Your task to perform on an android device: turn pop-ups on in chrome Image 0: 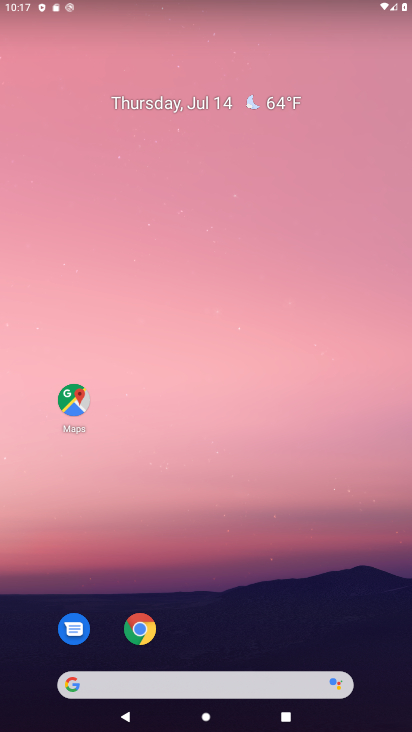
Step 0: click (141, 631)
Your task to perform on an android device: turn pop-ups on in chrome Image 1: 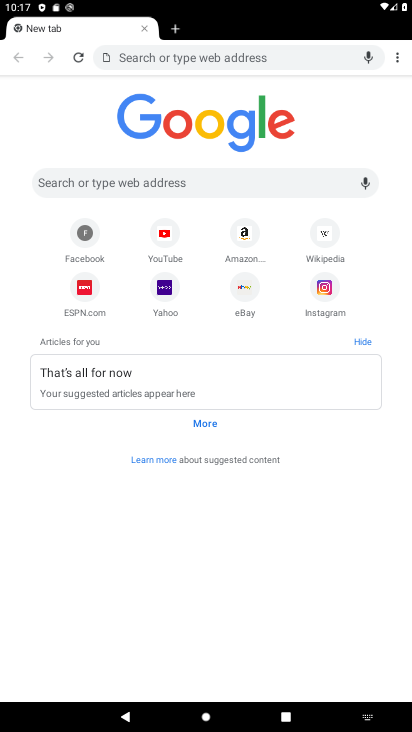
Step 1: click (396, 60)
Your task to perform on an android device: turn pop-ups on in chrome Image 2: 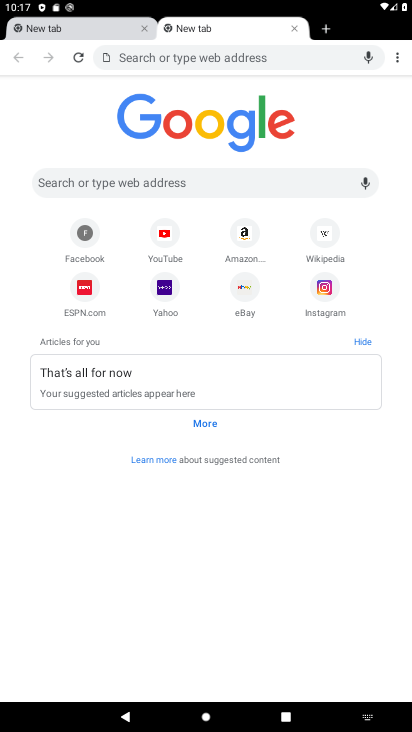
Step 2: click (399, 51)
Your task to perform on an android device: turn pop-ups on in chrome Image 3: 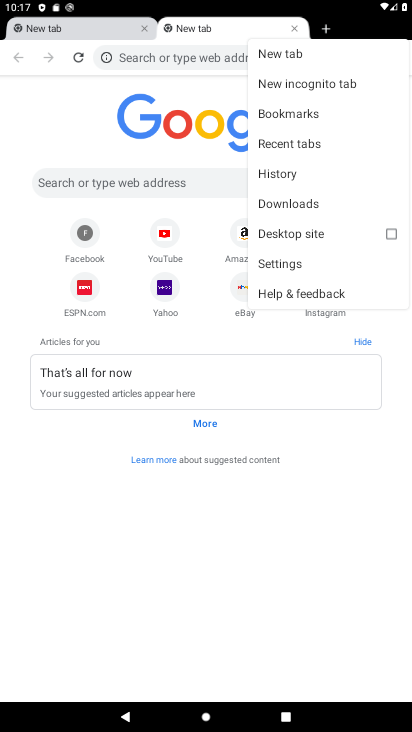
Step 3: click (287, 265)
Your task to perform on an android device: turn pop-ups on in chrome Image 4: 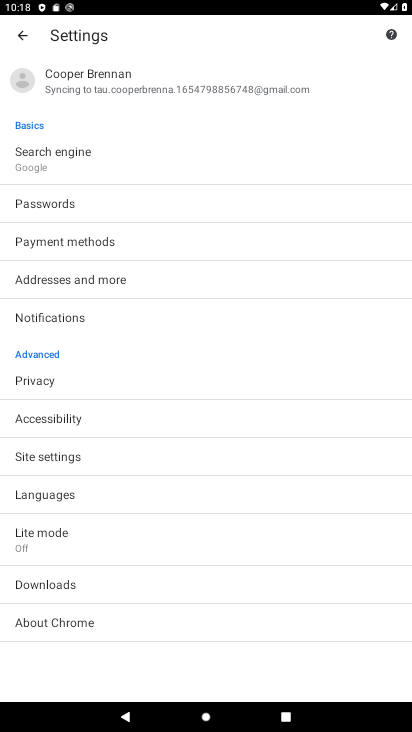
Step 4: click (37, 457)
Your task to perform on an android device: turn pop-ups on in chrome Image 5: 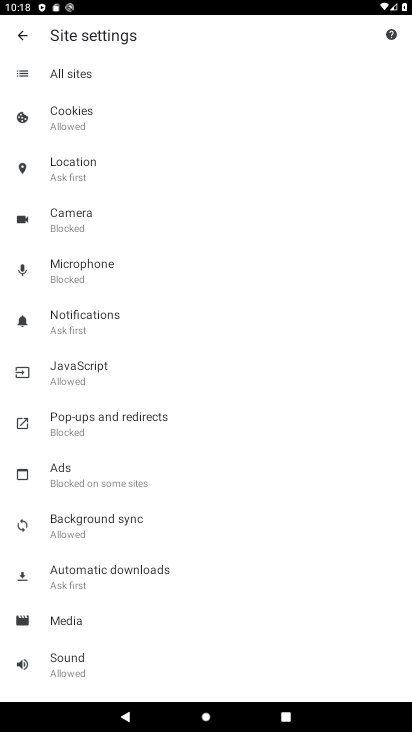
Step 5: click (98, 425)
Your task to perform on an android device: turn pop-ups on in chrome Image 6: 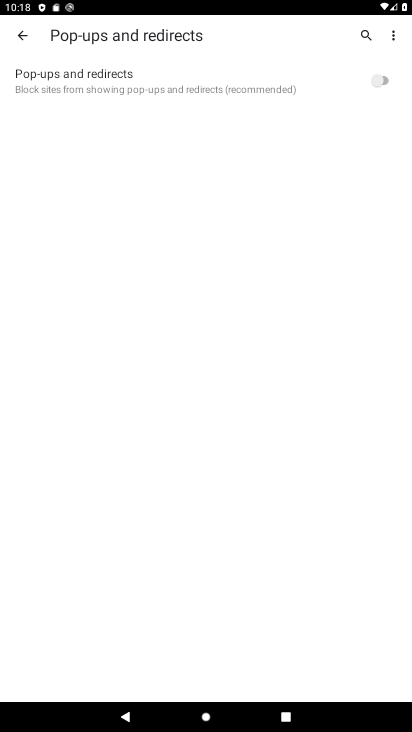
Step 6: click (378, 82)
Your task to perform on an android device: turn pop-ups on in chrome Image 7: 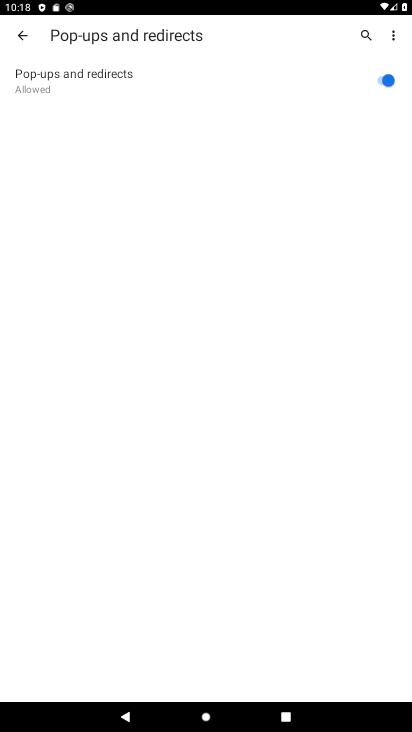
Step 7: task complete